Your task to perform on an android device: Go to privacy settings Image 0: 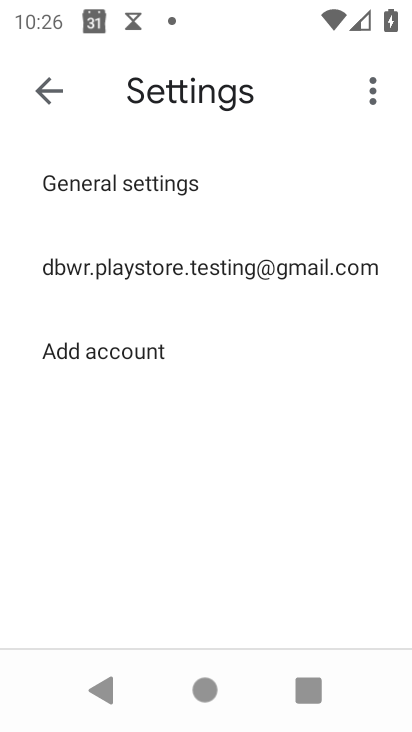
Step 0: press home button
Your task to perform on an android device: Go to privacy settings Image 1: 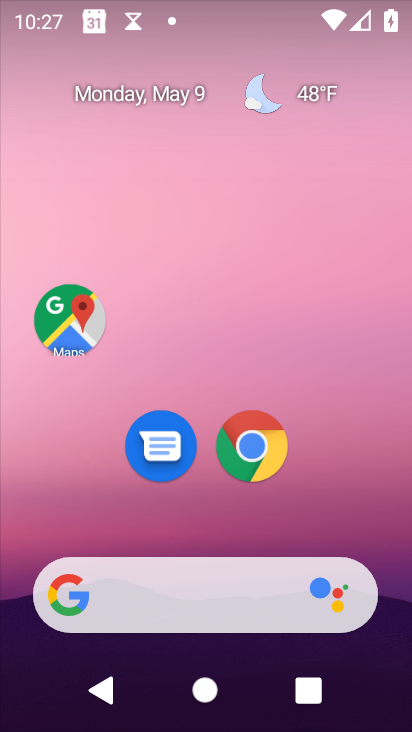
Step 1: drag from (303, 526) to (251, 91)
Your task to perform on an android device: Go to privacy settings Image 2: 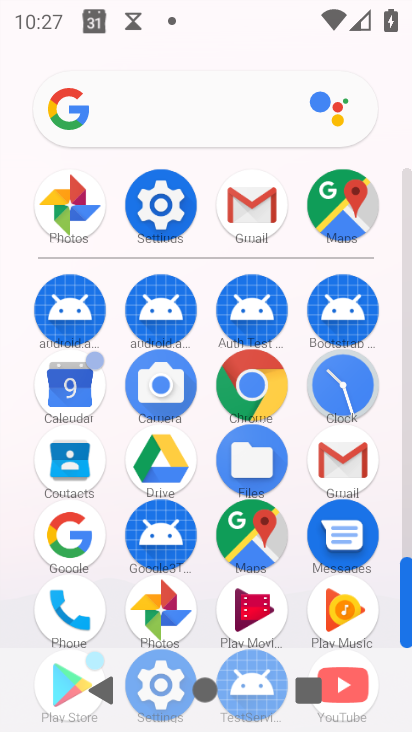
Step 2: click (160, 212)
Your task to perform on an android device: Go to privacy settings Image 3: 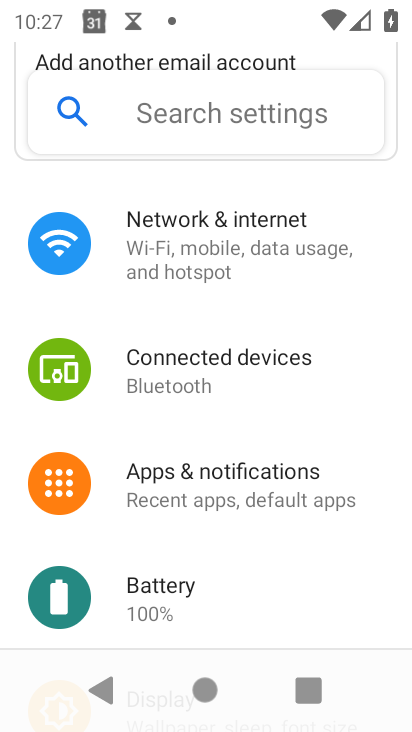
Step 3: drag from (253, 601) to (264, 307)
Your task to perform on an android device: Go to privacy settings Image 4: 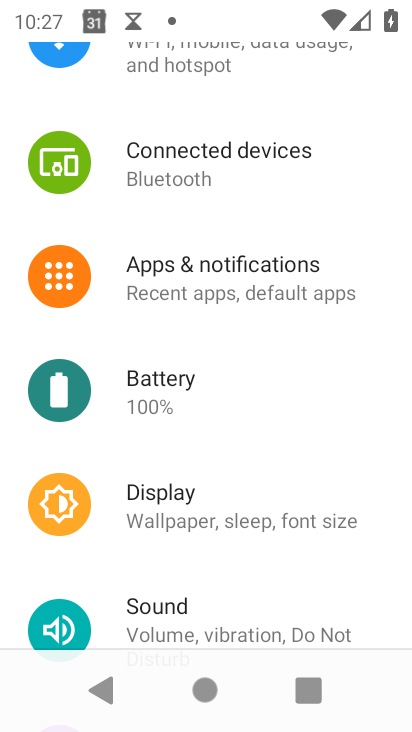
Step 4: drag from (223, 589) to (242, 241)
Your task to perform on an android device: Go to privacy settings Image 5: 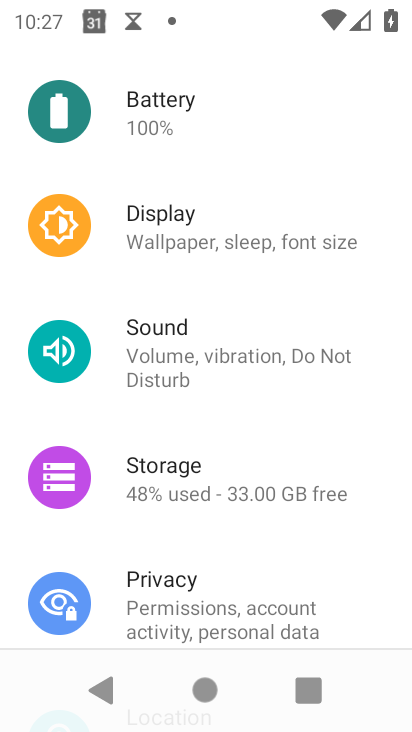
Step 5: click (222, 609)
Your task to perform on an android device: Go to privacy settings Image 6: 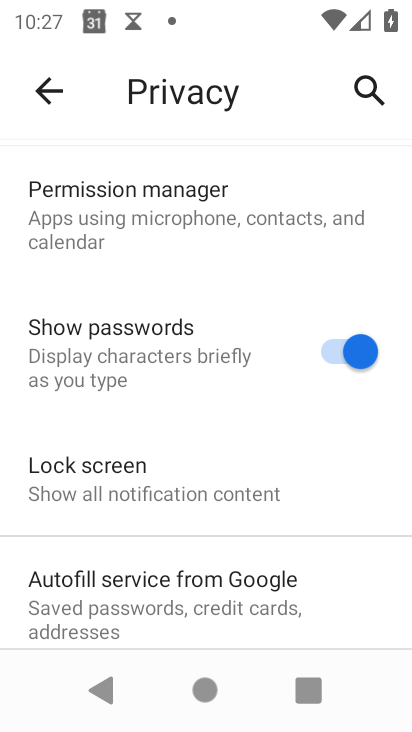
Step 6: task complete